Your task to perform on an android device: turn on priority inbox in the gmail app Image 0: 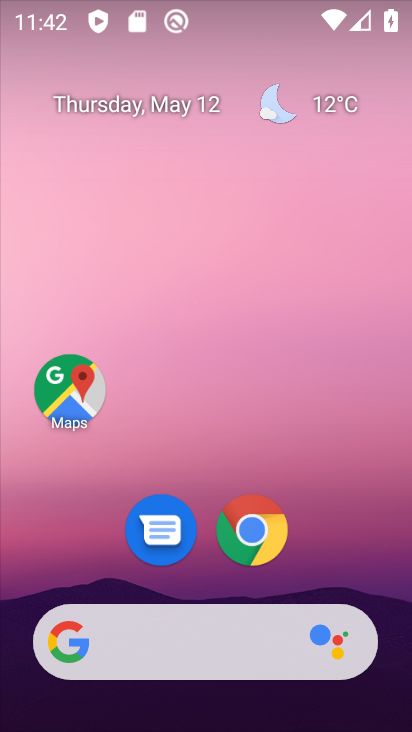
Step 0: drag from (406, 548) to (274, 37)
Your task to perform on an android device: turn on priority inbox in the gmail app Image 1: 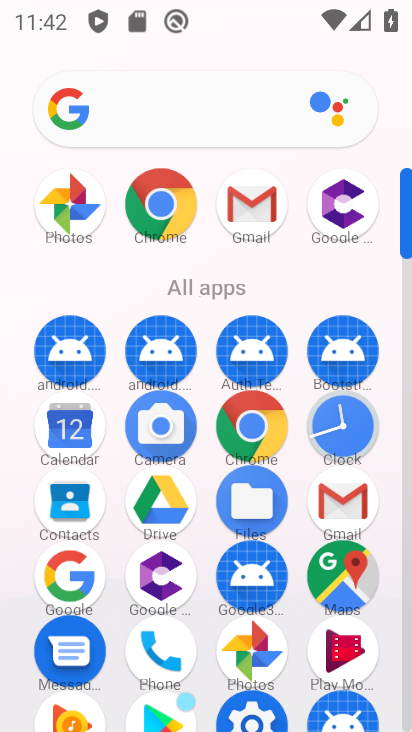
Step 1: click (352, 502)
Your task to perform on an android device: turn on priority inbox in the gmail app Image 2: 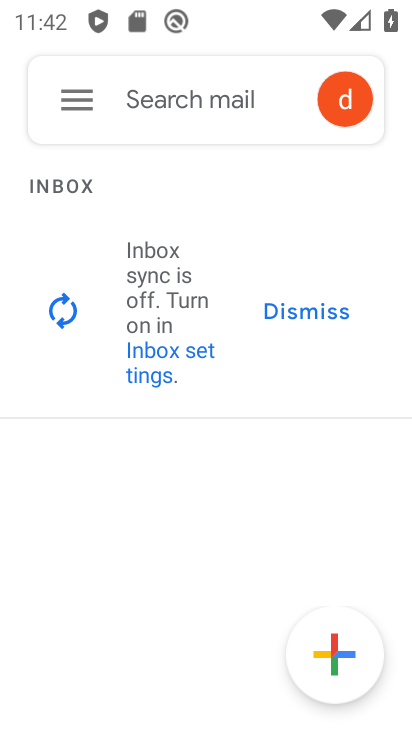
Step 2: click (85, 112)
Your task to perform on an android device: turn on priority inbox in the gmail app Image 3: 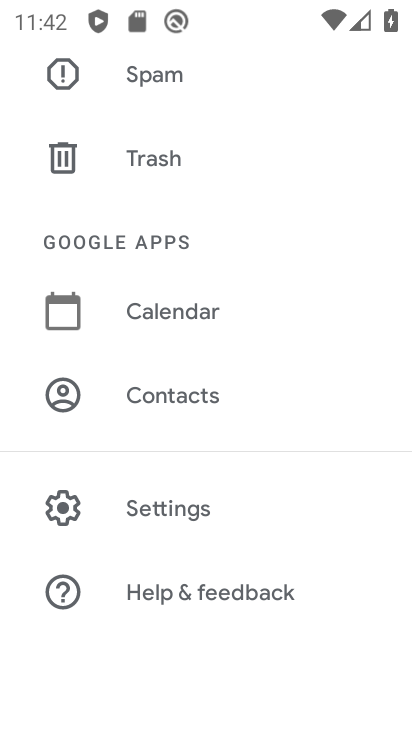
Step 3: click (240, 496)
Your task to perform on an android device: turn on priority inbox in the gmail app Image 4: 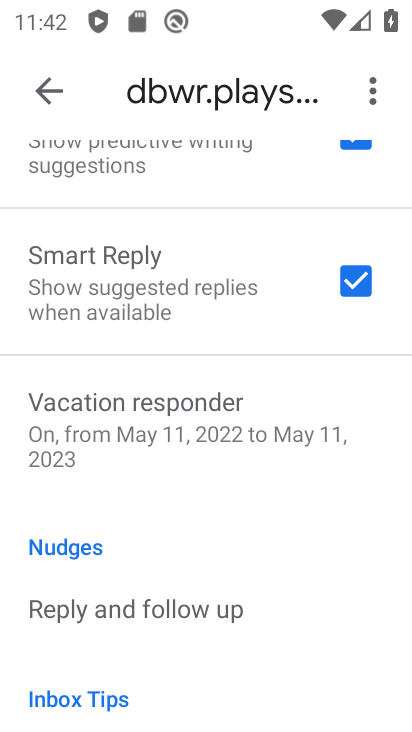
Step 4: task complete